Your task to perform on an android device: open app "Cash App" (install if not already installed) Image 0: 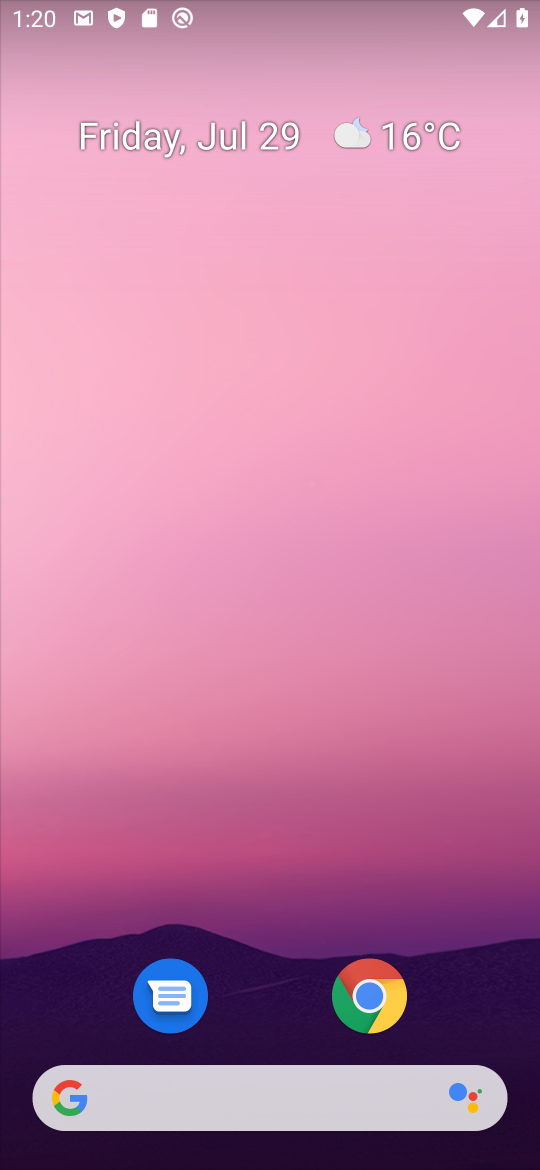
Step 0: drag from (276, 1077) to (213, 139)
Your task to perform on an android device: open app "Cash App" (install if not already installed) Image 1: 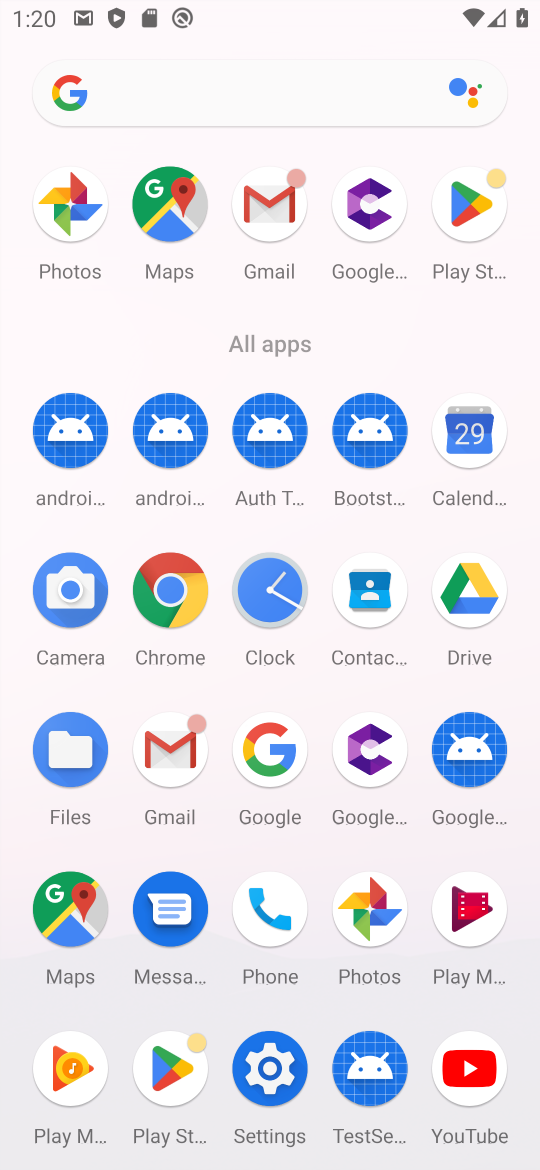
Step 1: press home button
Your task to perform on an android device: open app "Cash App" (install if not already installed) Image 2: 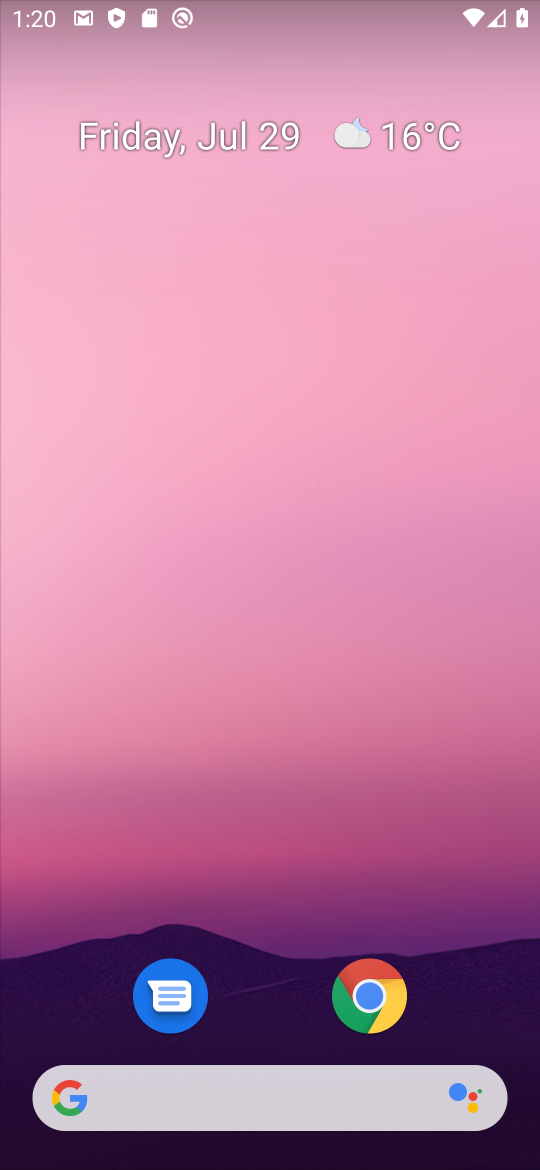
Step 2: drag from (232, 1083) to (239, 262)
Your task to perform on an android device: open app "Cash App" (install if not already installed) Image 3: 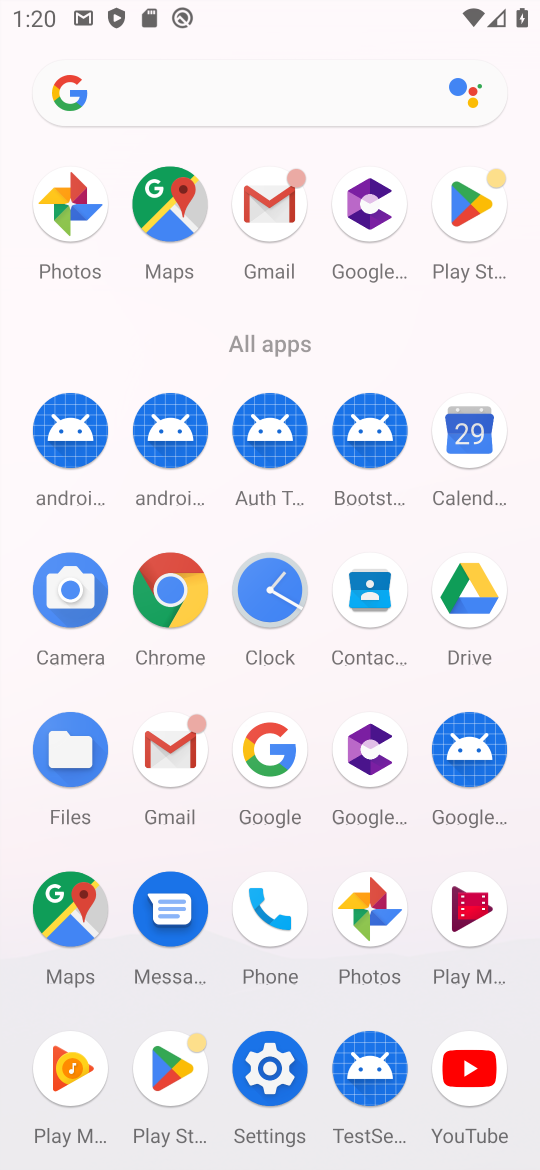
Step 3: click (450, 220)
Your task to perform on an android device: open app "Cash App" (install if not already installed) Image 4: 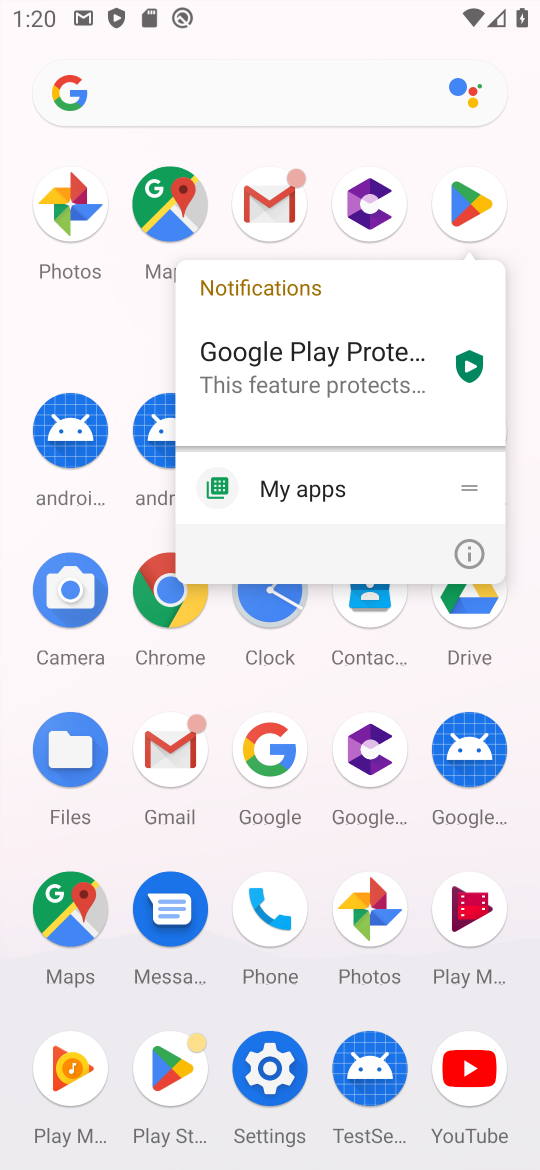
Step 4: click (464, 193)
Your task to perform on an android device: open app "Cash App" (install if not already installed) Image 5: 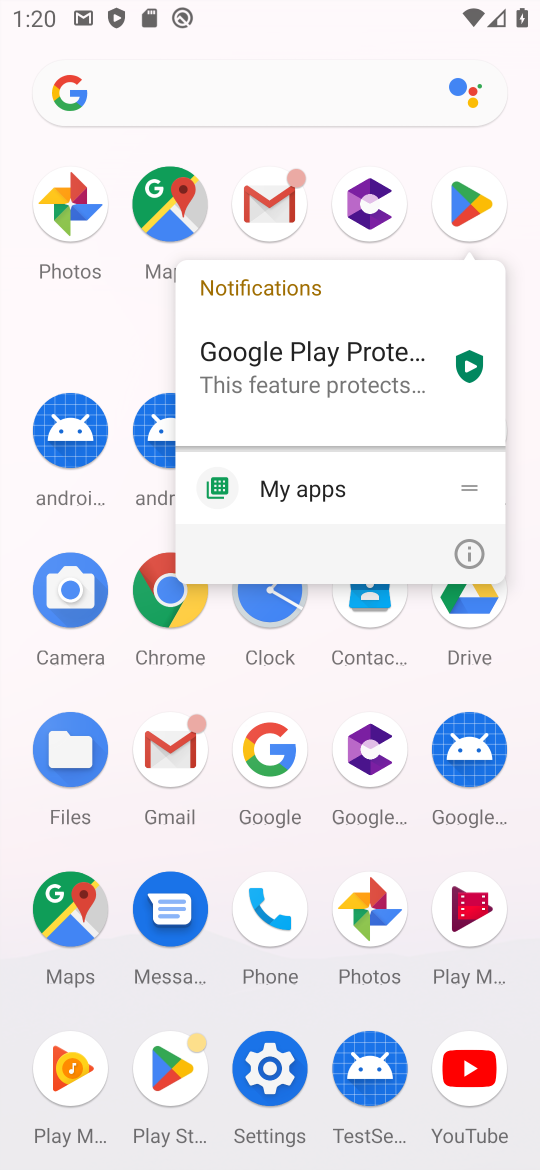
Step 5: click (463, 209)
Your task to perform on an android device: open app "Cash App" (install if not already installed) Image 6: 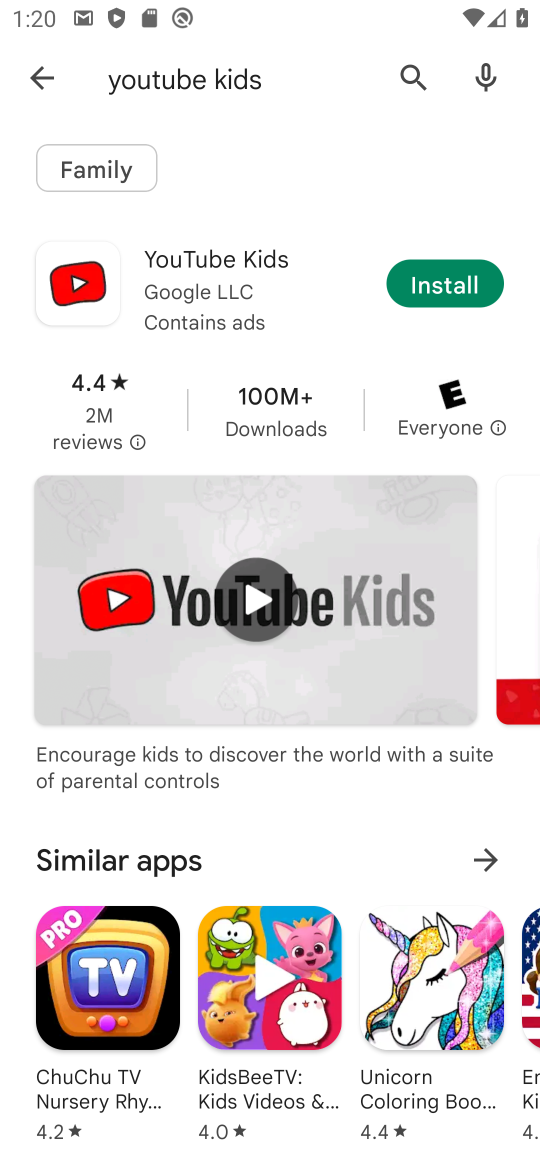
Step 6: click (413, 79)
Your task to perform on an android device: open app "Cash App" (install if not already installed) Image 7: 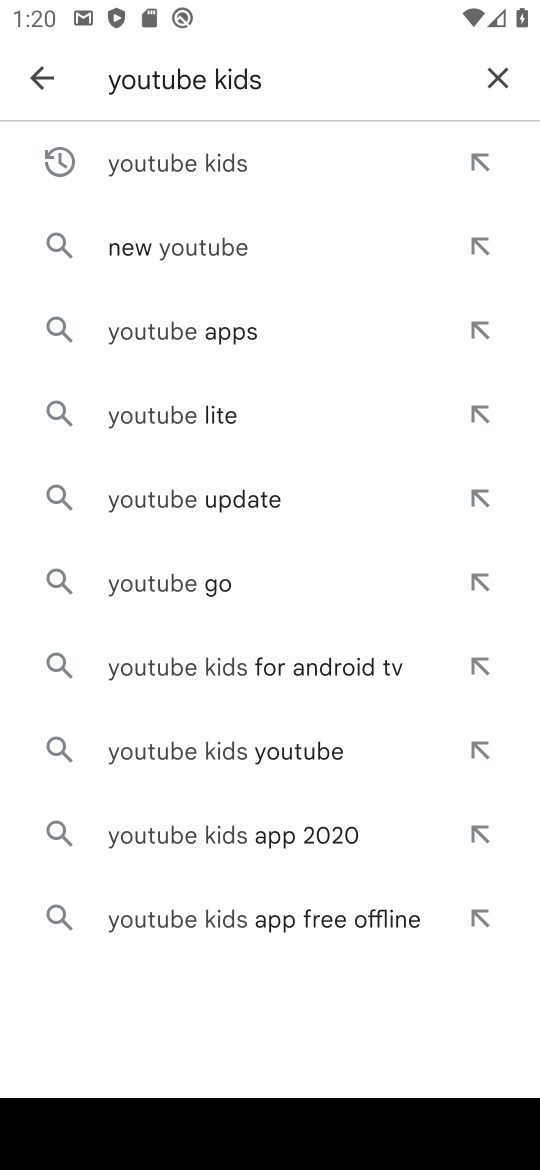
Step 7: click (502, 75)
Your task to perform on an android device: open app "Cash App" (install if not already installed) Image 8: 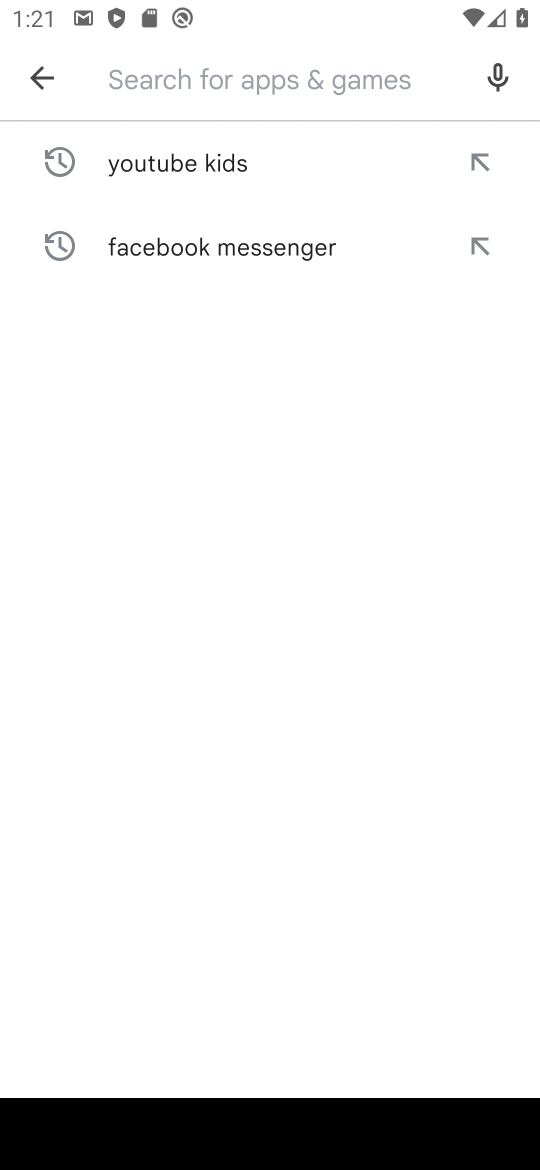
Step 8: type "Cash App"
Your task to perform on an android device: open app "Cash App" (install if not already installed) Image 9: 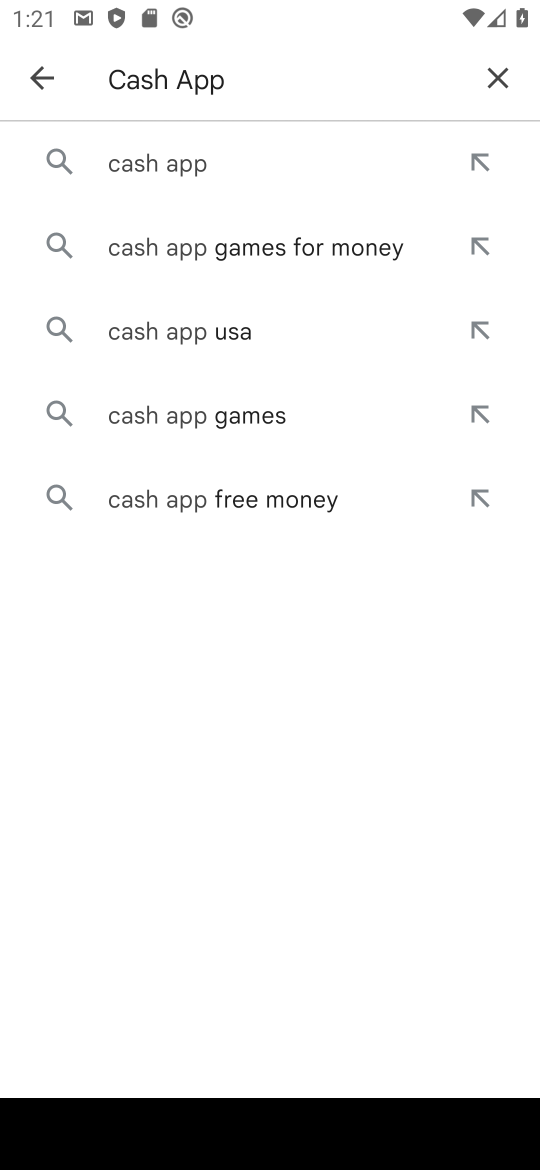
Step 9: click (156, 169)
Your task to perform on an android device: open app "Cash App" (install if not already installed) Image 10: 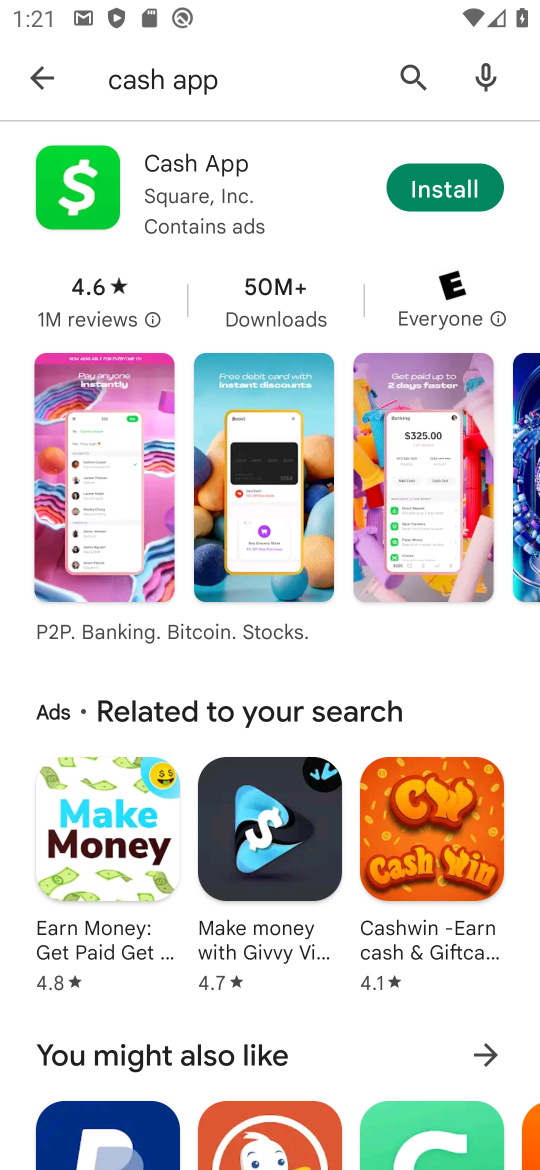
Step 10: click (437, 190)
Your task to perform on an android device: open app "Cash App" (install if not already installed) Image 11: 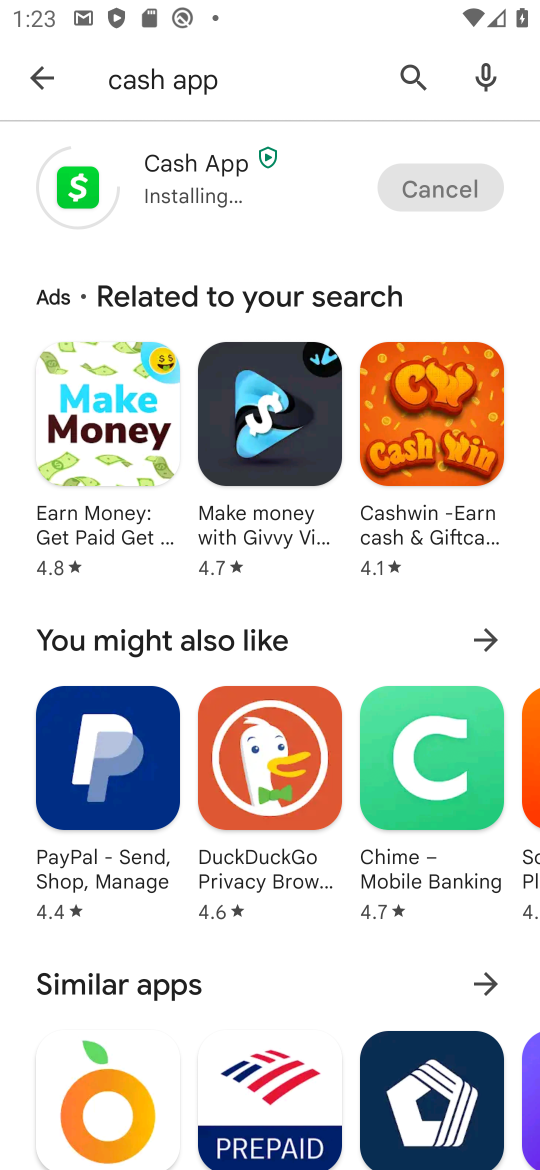
Step 11: task complete